Your task to perform on an android device: open app "Lyft - Rideshare, Bikes, Scooters & Transit" Image 0: 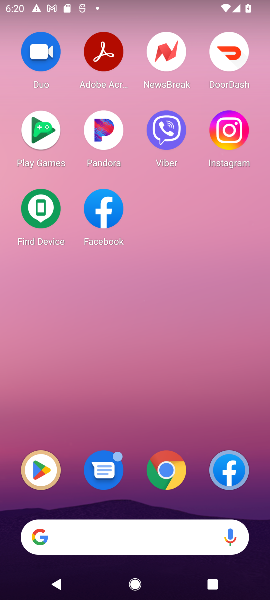
Step 0: drag from (206, 389) to (213, 67)
Your task to perform on an android device: open app "Lyft - Rideshare, Bikes, Scooters & Transit" Image 1: 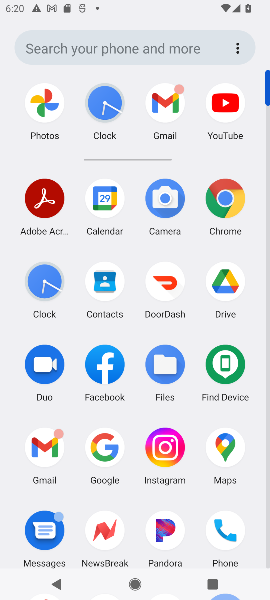
Step 1: drag from (199, 497) to (219, 188)
Your task to perform on an android device: open app "Lyft - Rideshare, Bikes, Scooters & Transit" Image 2: 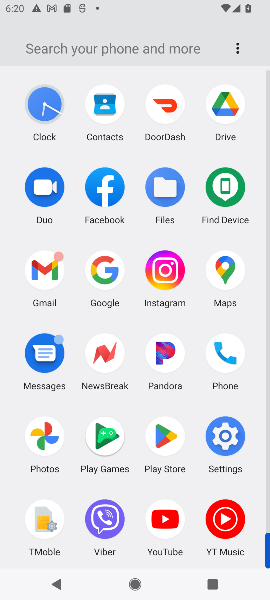
Step 2: click (162, 448)
Your task to perform on an android device: open app "Lyft - Rideshare, Bikes, Scooters & Transit" Image 3: 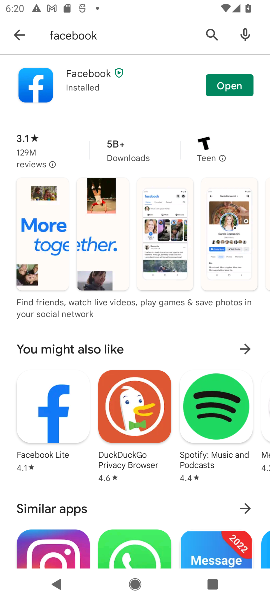
Step 3: click (159, 37)
Your task to perform on an android device: open app "Lyft - Rideshare, Bikes, Scooters & Transit" Image 4: 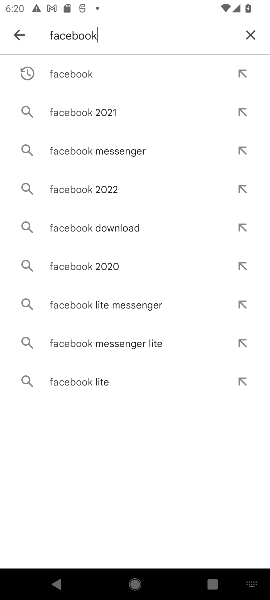
Step 4: click (260, 29)
Your task to perform on an android device: open app "Lyft - Rideshare, Bikes, Scooters & Transit" Image 5: 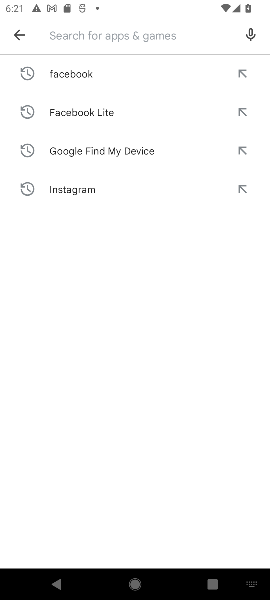
Step 5: type "Lyft"
Your task to perform on an android device: open app "Lyft - Rideshare, Bikes, Scooters & Transit" Image 6: 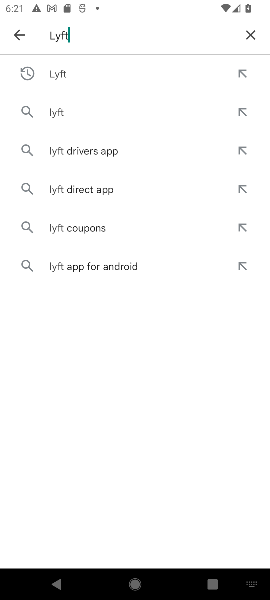
Step 6: press enter
Your task to perform on an android device: open app "Lyft - Rideshare, Bikes, Scooters & Transit" Image 7: 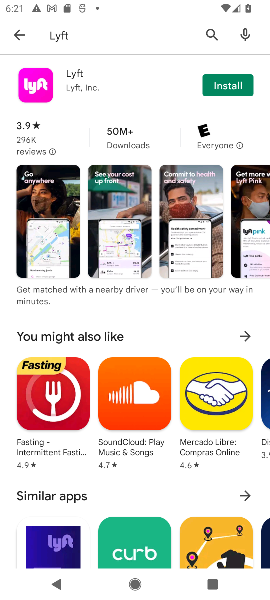
Step 7: task complete